Your task to perform on an android device: clear all cookies in the chrome app Image 0: 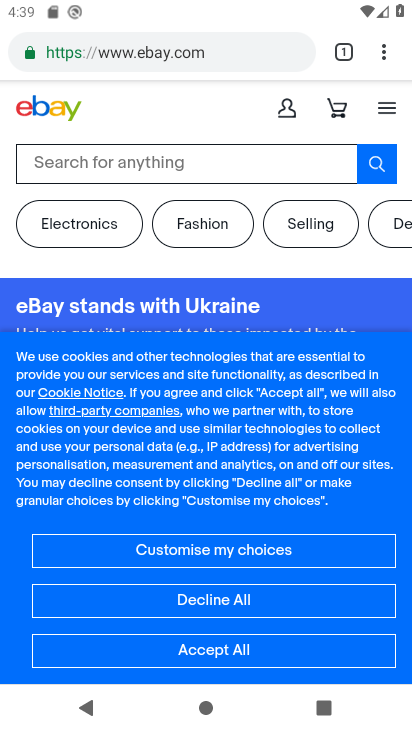
Step 0: press home button
Your task to perform on an android device: clear all cookies in the chrome app Image 1: 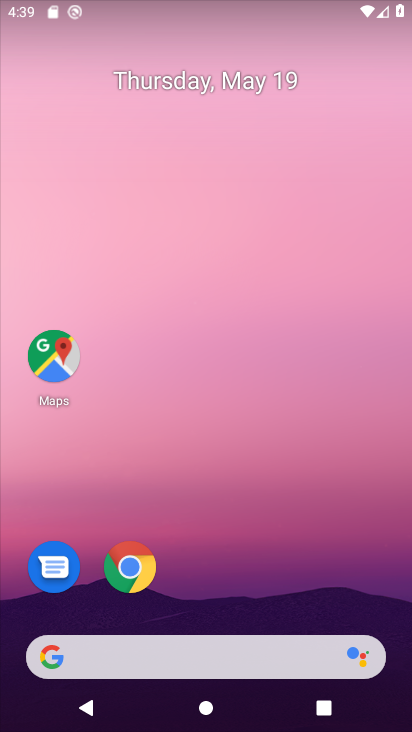
Step 1: click (129, 566)
Your task to perform on an android device: clear all cookies in the chrome app Image 2: 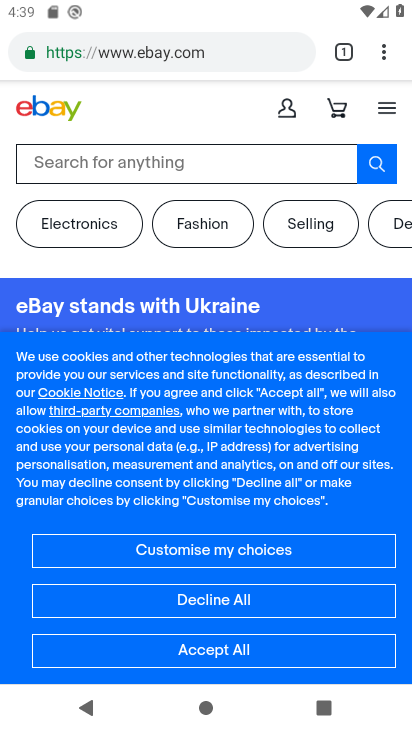
Step 2: click (385, 51)
Your task to perform on an android device: clear all cookies in the chrome app Image 3: 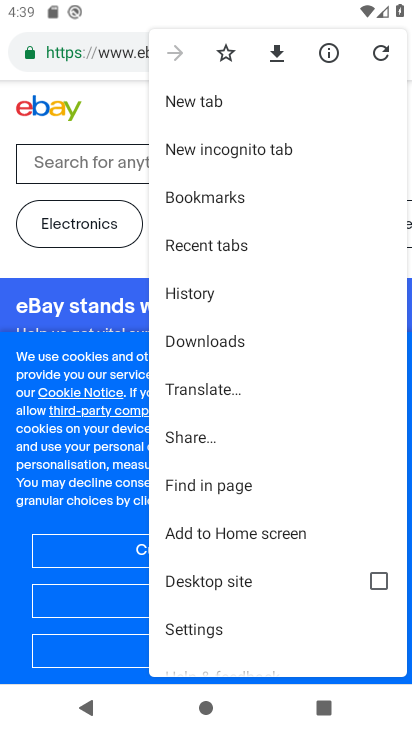
Step 3: drag from (213, 511) to (231, 441)
Your task to perform on an android device: clear all cookies in the chrome app Image 4: 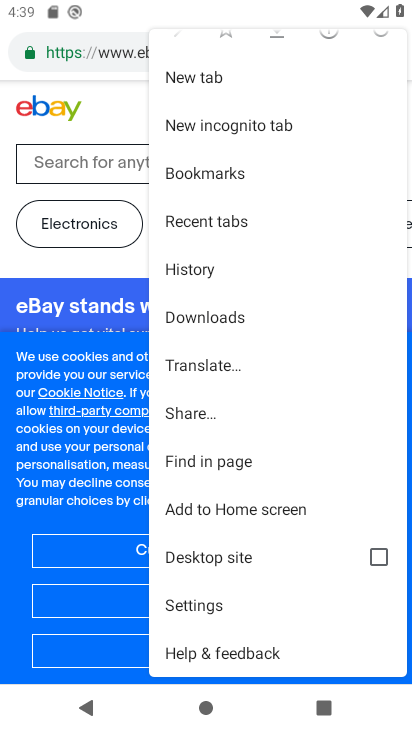
Step 4: click (195, 604)
Your task to perform on an android device: clear all cookies in the chrome app Image 5: 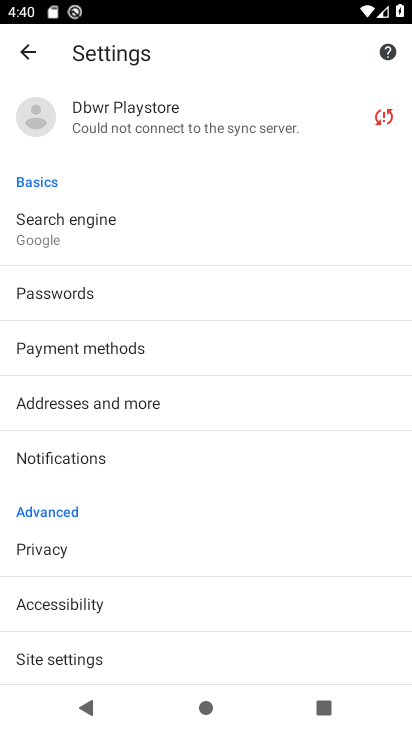
Step 5: click (55, 552)
Your task to perform on an android device: clear all cookies in the chrome app Image 6: 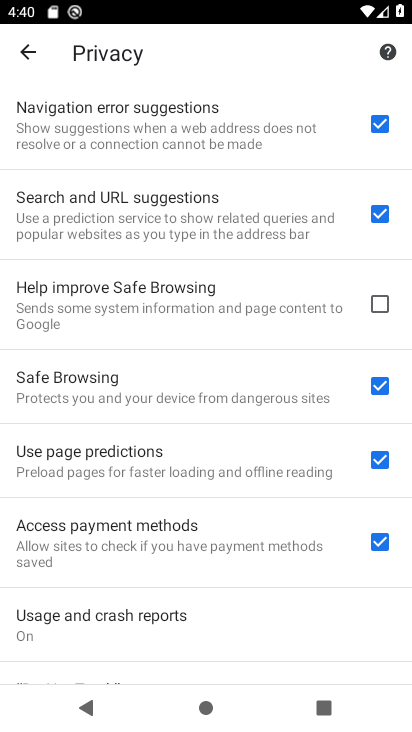
Step 6: drag from (196, 606) to (209, 537)
Your task to perform on an android device: clear all cookies in the chrome app Image 7: 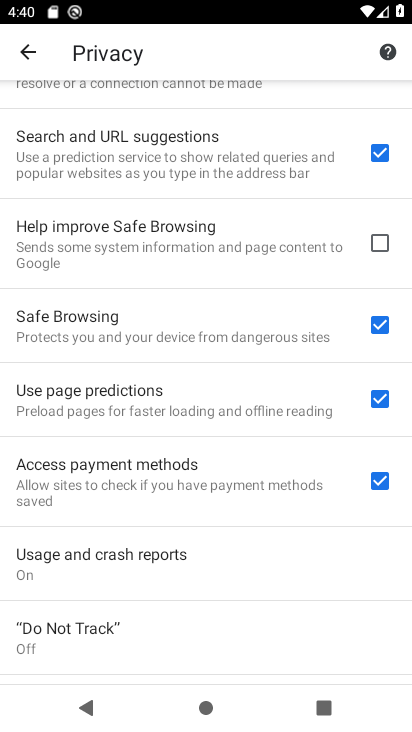
Step 7: drag from (148, 623) to (171, 520)
Your task to perform on an android device: clear all cookies in the chrome app Image 8: 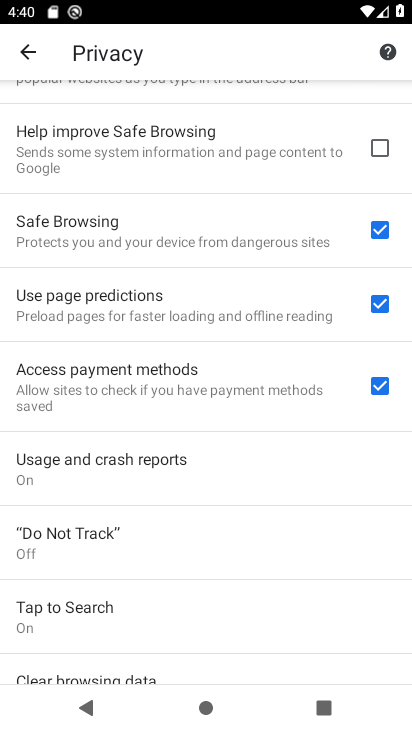
Step 8: drag from (131, 614) to (189, 536)
Your task to perform on an android device: clear all cookies in the chrome app Image 9: 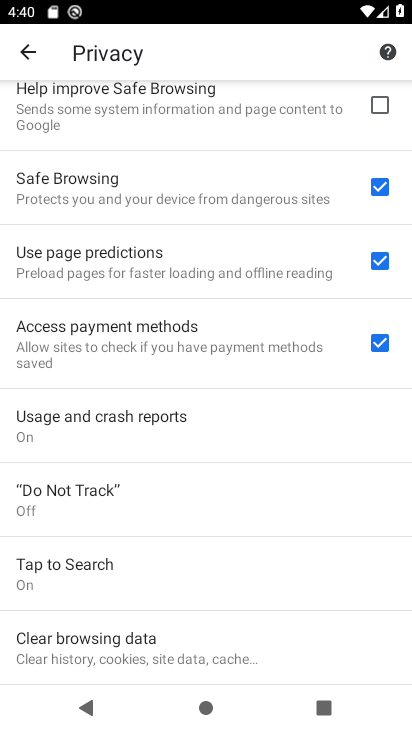
Step 9: click (103, 647)
Your task to perform on an android device: clear all cookies in the chrome app Image 10: 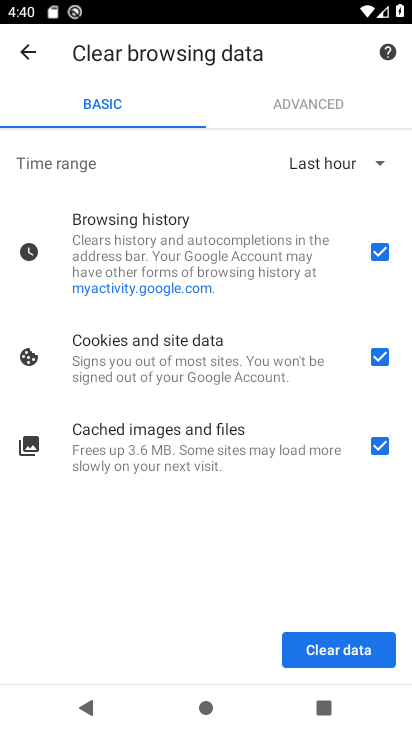
Step 10: click (385, 450)
Your task to perform on an android device: clear all cookies in the chrome app Image 11: 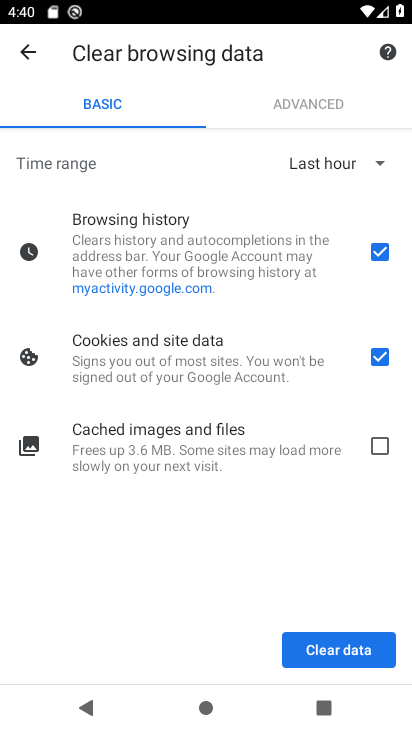
Step 11: click (386, 250)
Your task to perform on an android device: clear all cookies in the chrome app Image 12: 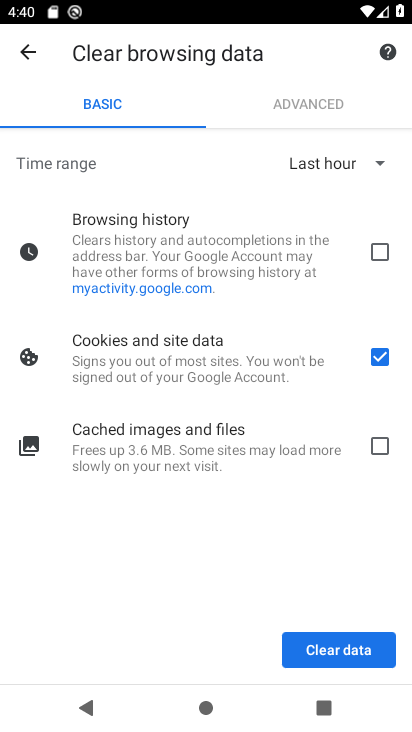
Step 12: click (337, 641)
Your task to perform on an android device: clear all cookies in the chrome app Image 13: 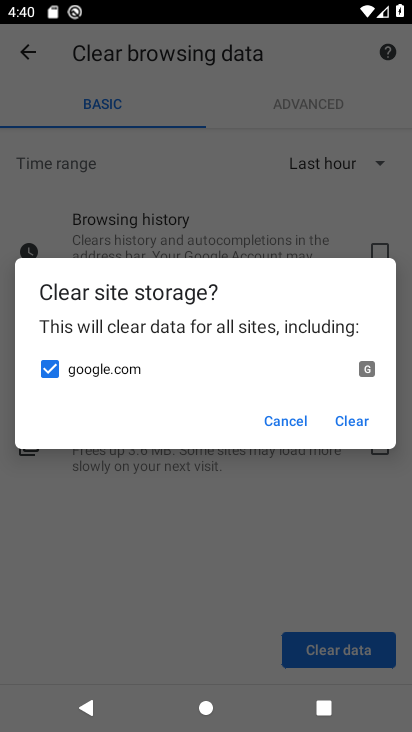
Step 13: click (348, 422)
Your task to perform on an android device: clear all cookies in the chrome app Image 14: 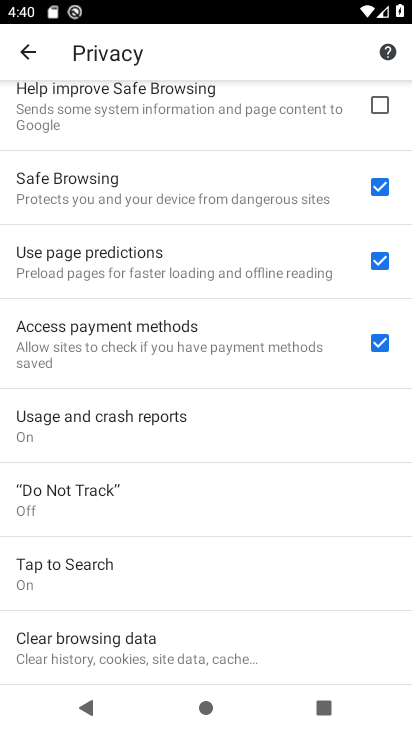
Step 14: task complete